Your task to perform on an android device: check out phone information Image 0: 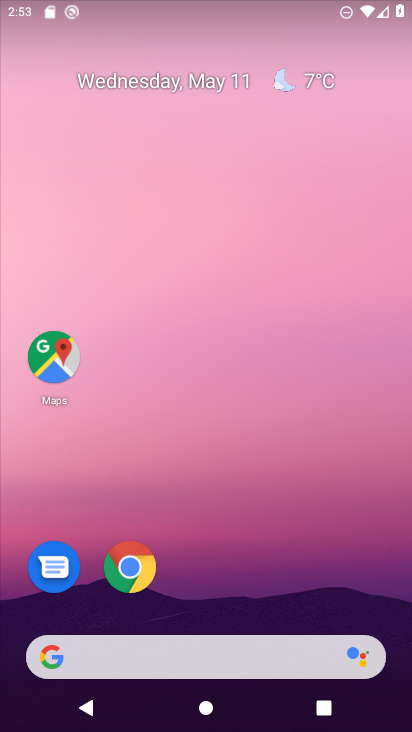
Step 0: drag from (269, 601) to (234, 272)
Your task to perform on an android device: check out phone information Image 1: 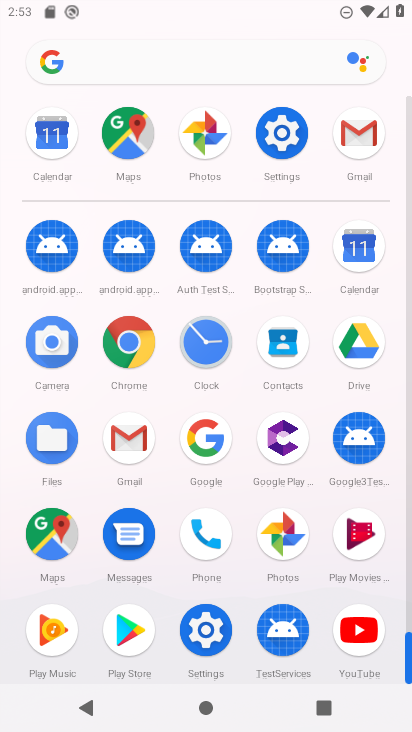
Step 1: click (213, 631)
Your task to perform on an android device: check out phone information Image 2: 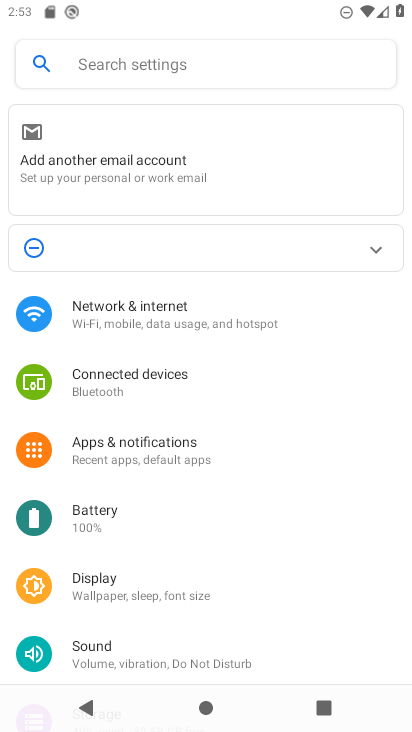
Step 2: drag from (277, 650) to (202, 255)
Your task to perform on an android device: check out phone information Image 3: 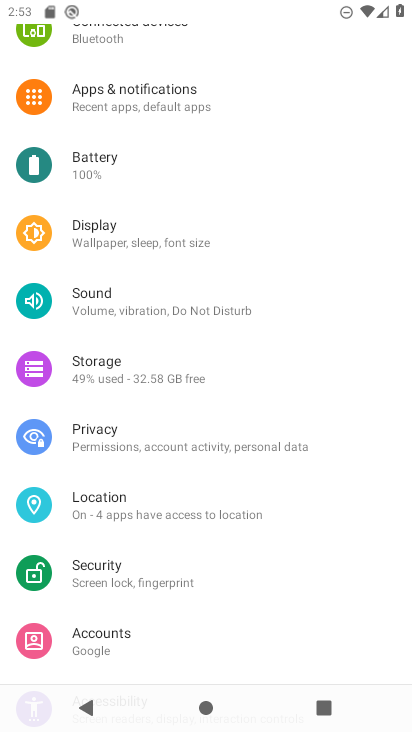
Step 3: drag from (256, 628) to (200, 265)
Your task to perform on an android device: check out phone information Image 4: 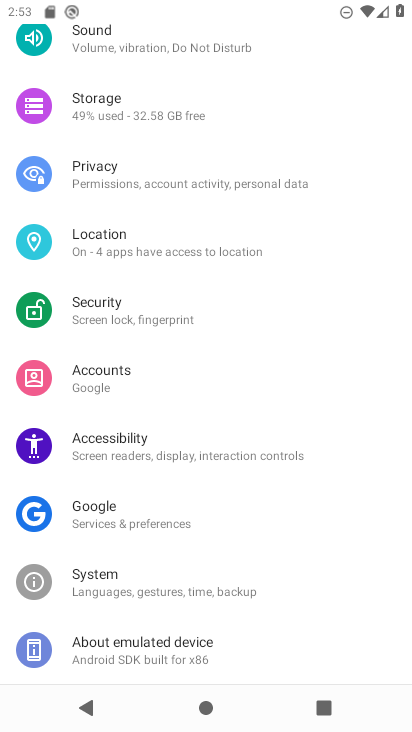
Step 4: drag from (346, 611) to (275, 260)
Your task to perform on an android device: check out phone information Image 5: 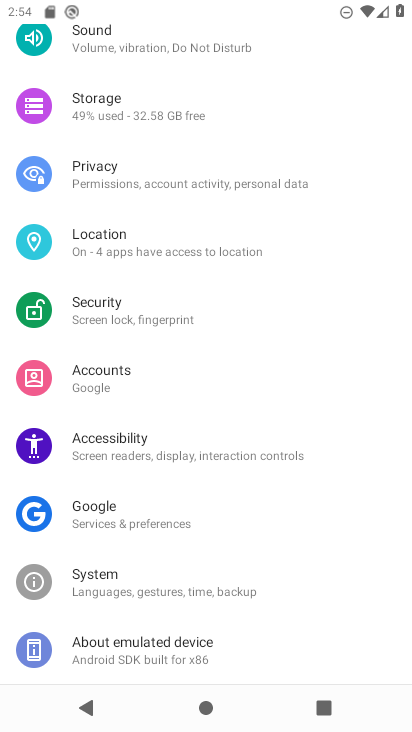
Step 5: click (224, 648)
Your task to perform on an android device: check out phone information Image 6: 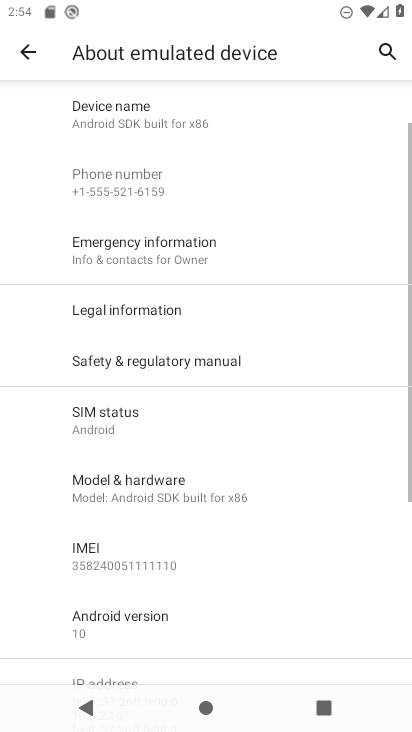
Step 6: task complete